Your task to perform on an android device: open app "Life360: Find Family & Friends" (install if not already installed) and enter user name: "gusts@gmail.com" and password: "assurers" Image 0: 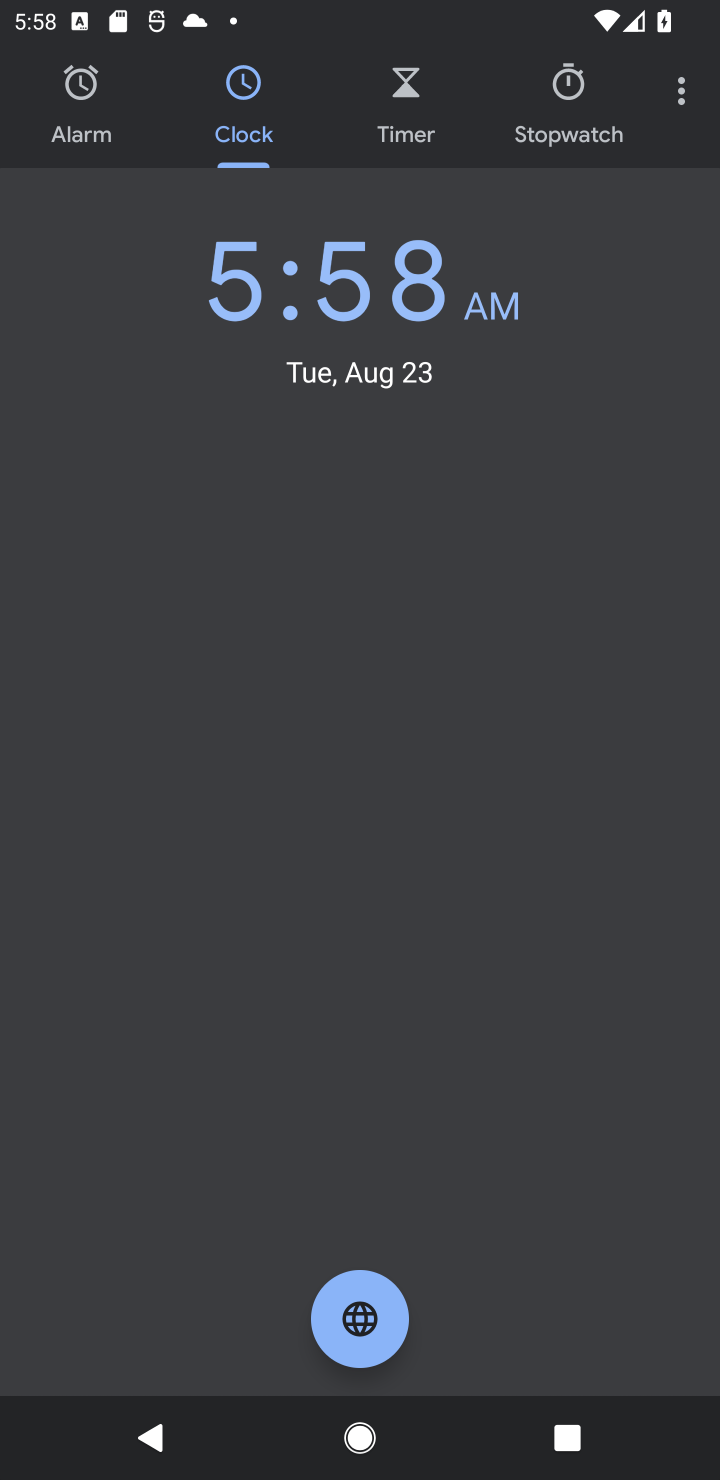
Step 0: press home button
Your task to perform on an android device: open app "Life360: Find Family & Friends" (install if not already installed) and enter user name: "gusts@gmail.com" and password: "assurers" Image 1: 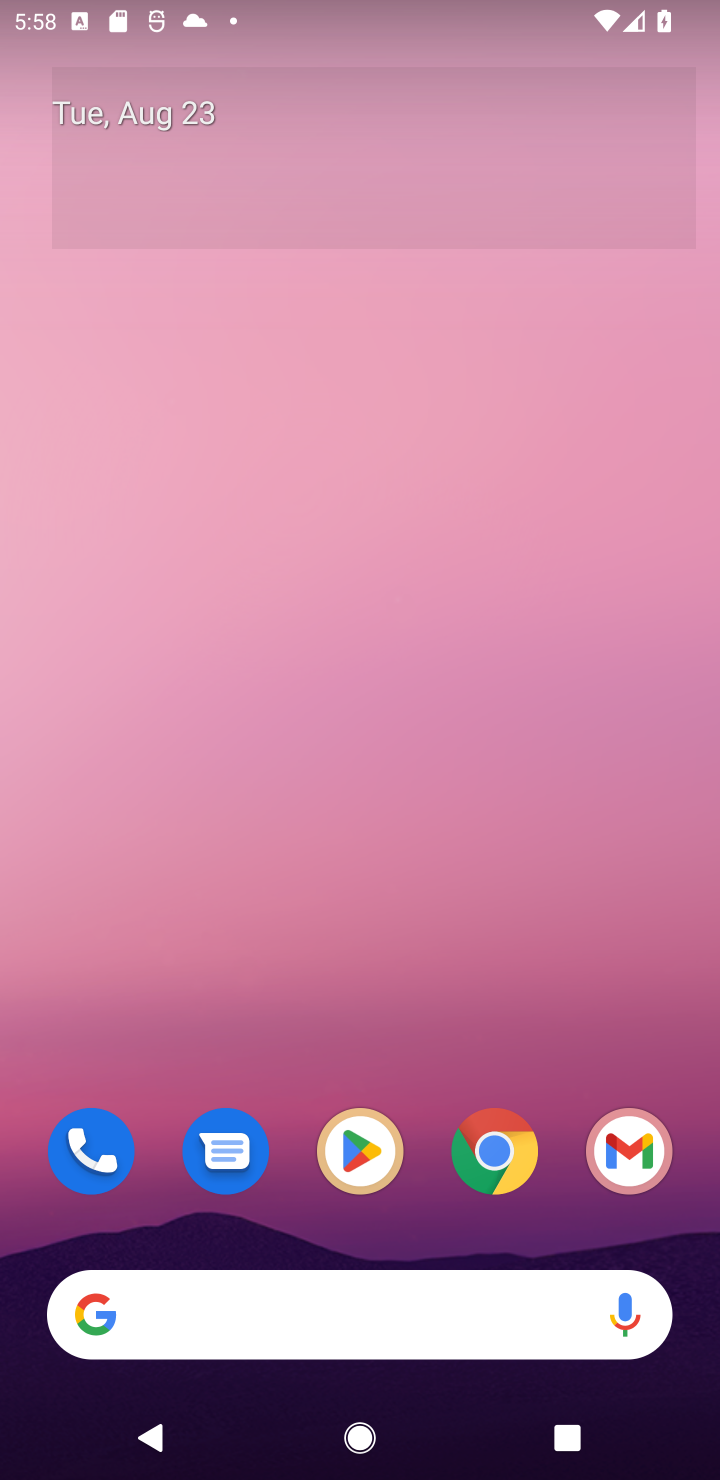
Step 1: click (333, 1147)
Your task to perform on an android device: open app "Life360: Find Family & Friends" (install if not already installed) and enter user name: "gusts@gmail.com" and password: "assurers" Image 2: 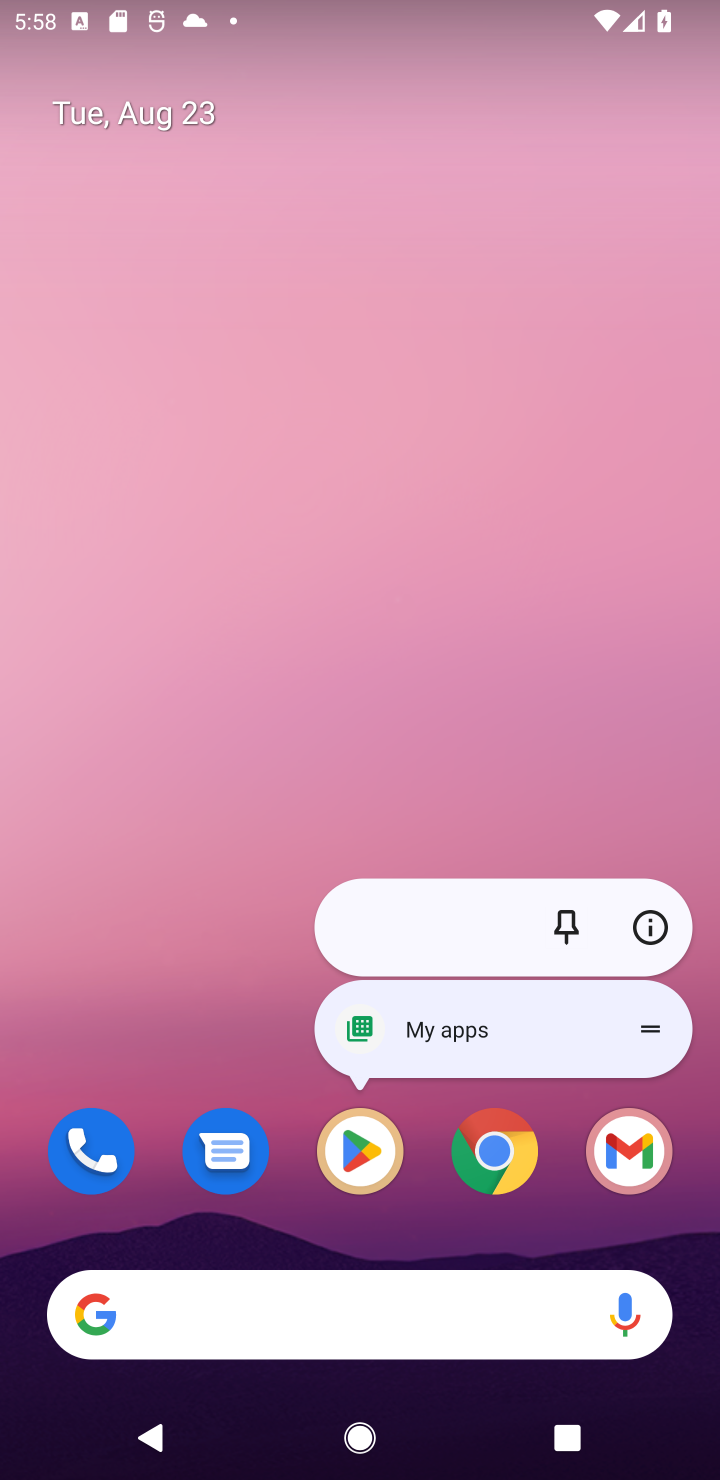
Step 2: click (379, 1149)
Your task to perform on an android device: open app "Life360: Find Family & Friends" (install if not already installed) and enter user name: "gusts@gmail.com" and password: "assurers" Image 3: 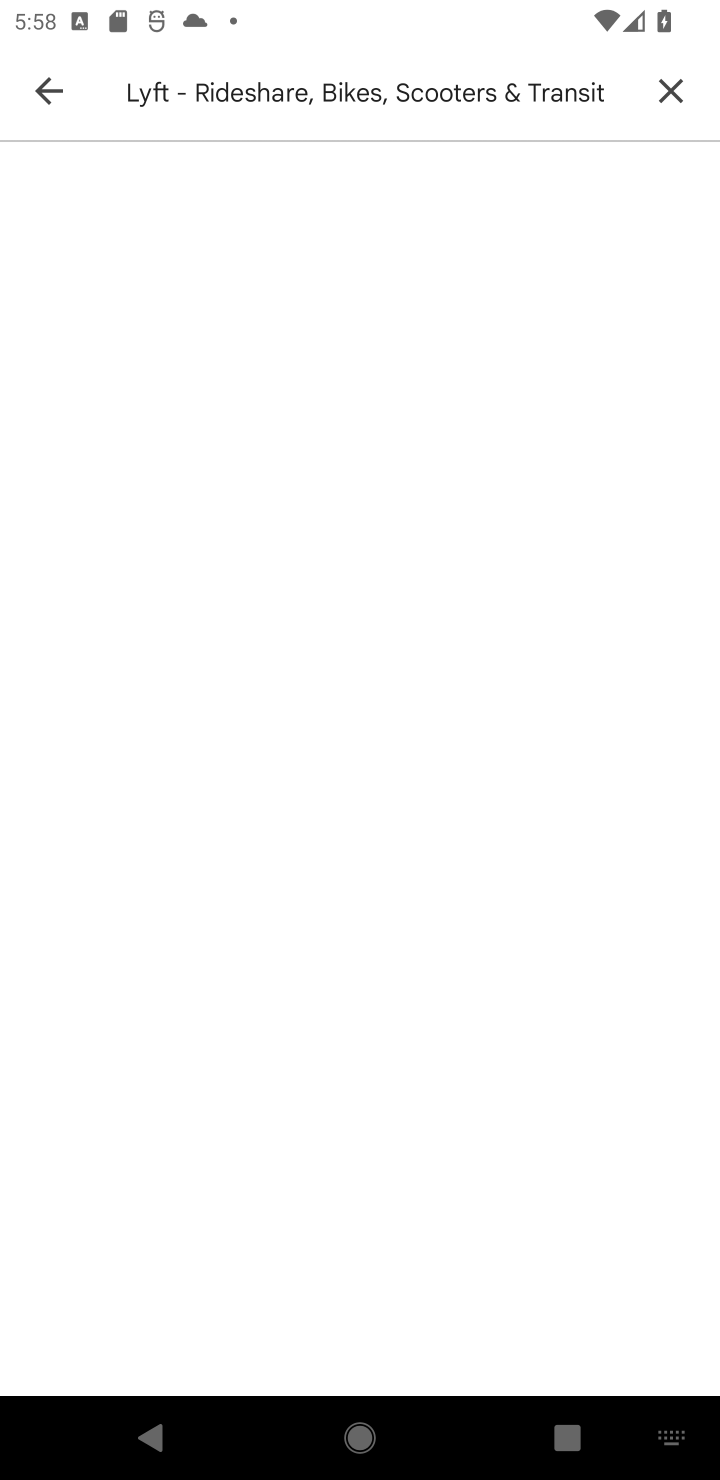
Step 3: click (663, 77)
Your task to perform on an android device: open app "Life360: Find Family & Friends" (install if not already installed) and enter user name: "gusts@gmail.com" and password: "assurers" Image 4: 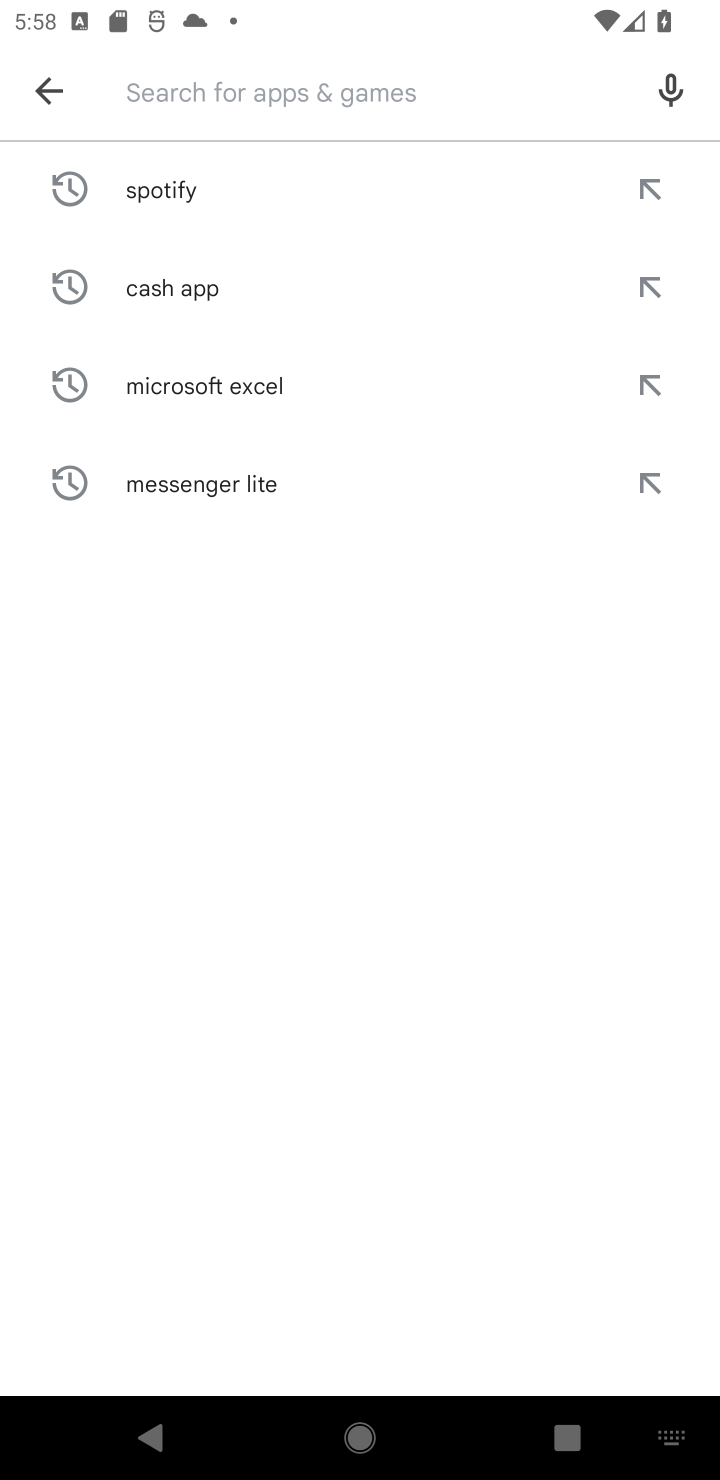
Step 4: type "Life360: Find Family & Friends"
Your task to perform on an android device: open app "Life360: Find Family & Friends" (install if not already installed) and enter user name: "gusts@gmail.com" and password: "assurers" Image 5: 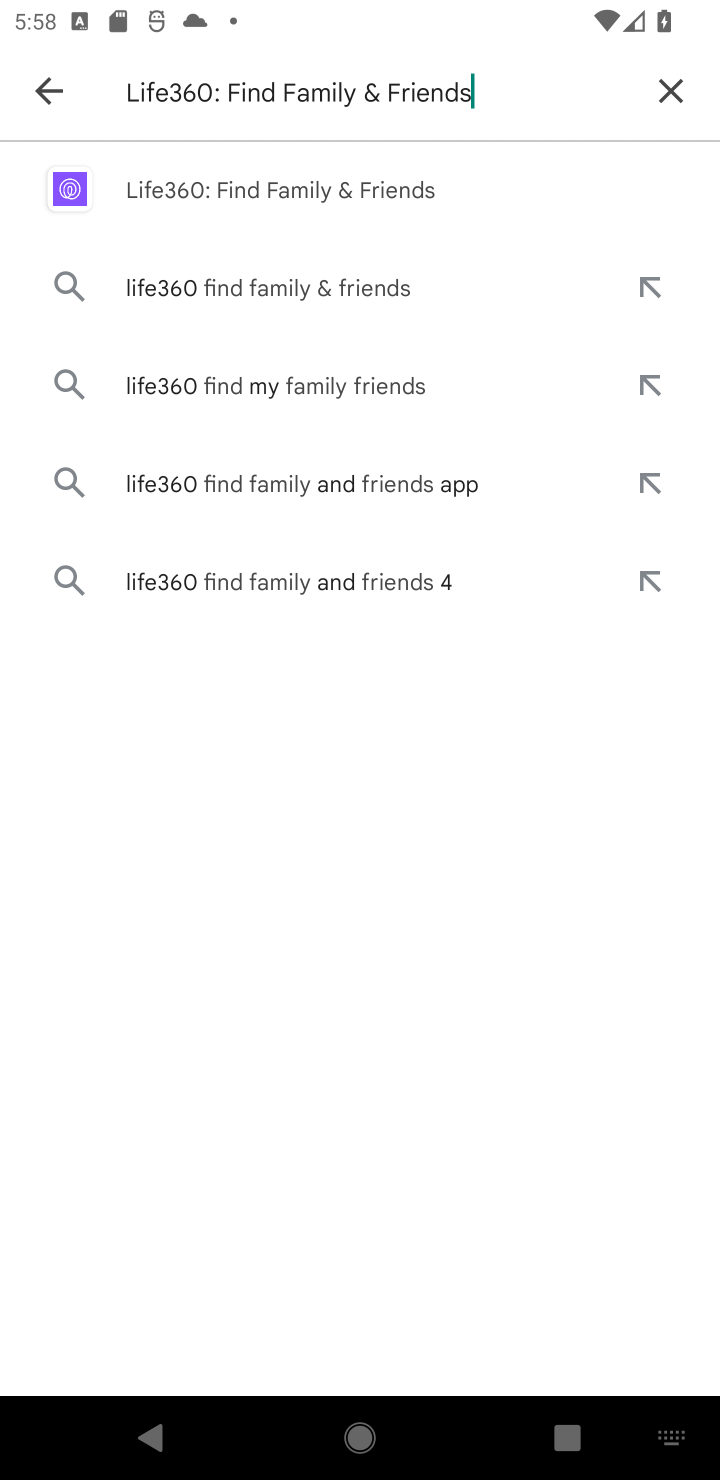
Step 5: click (318, 175)
Your task to perform on an android device: open app "Life360: Find Family & Friends" (install if not already installed) and enter user name: "gusts@gmail.com" and password: "assurers" Image 6: 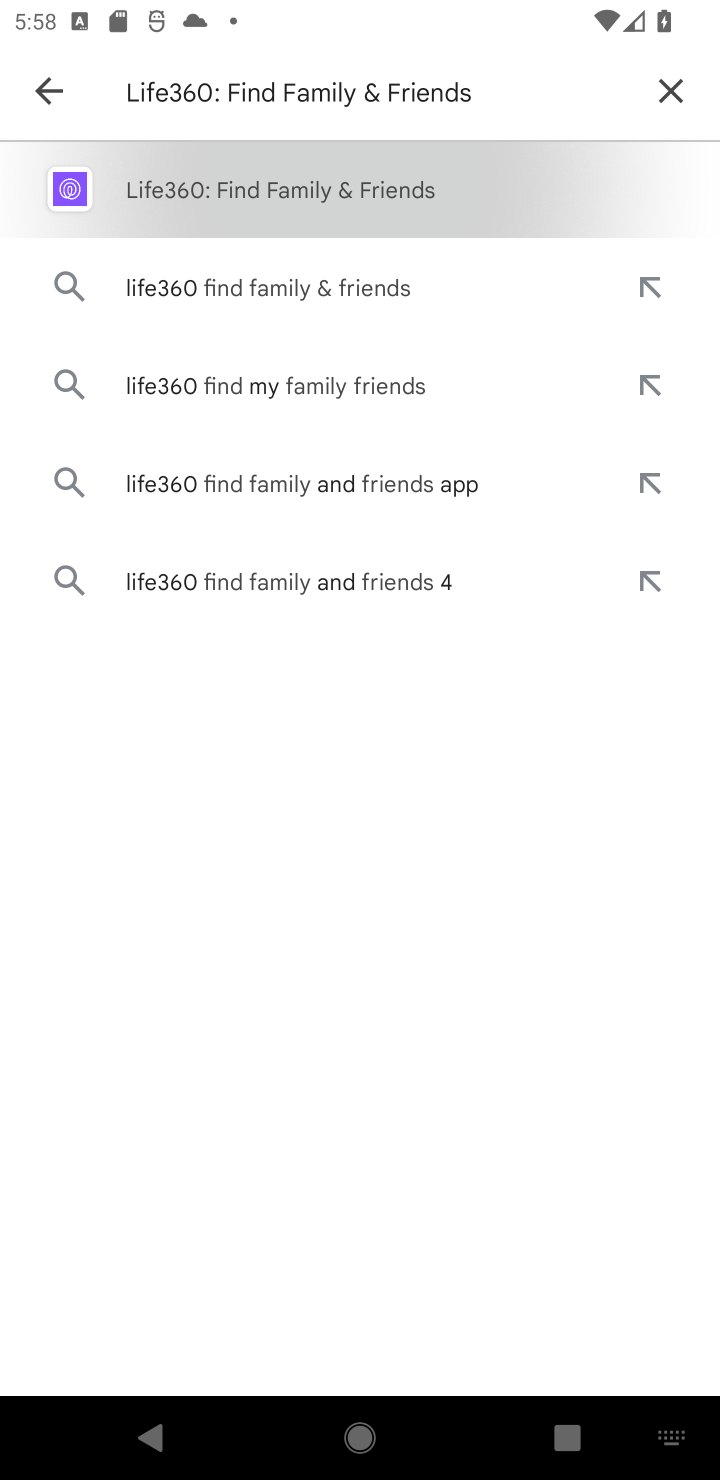
Step 6: click (309, 188)
Your task to perform on an android device: open app "Life360: Find Family & Friends" (install if not already installed) and enter user name: "gusts@gmail.com" and password: "assurers" Image 7: 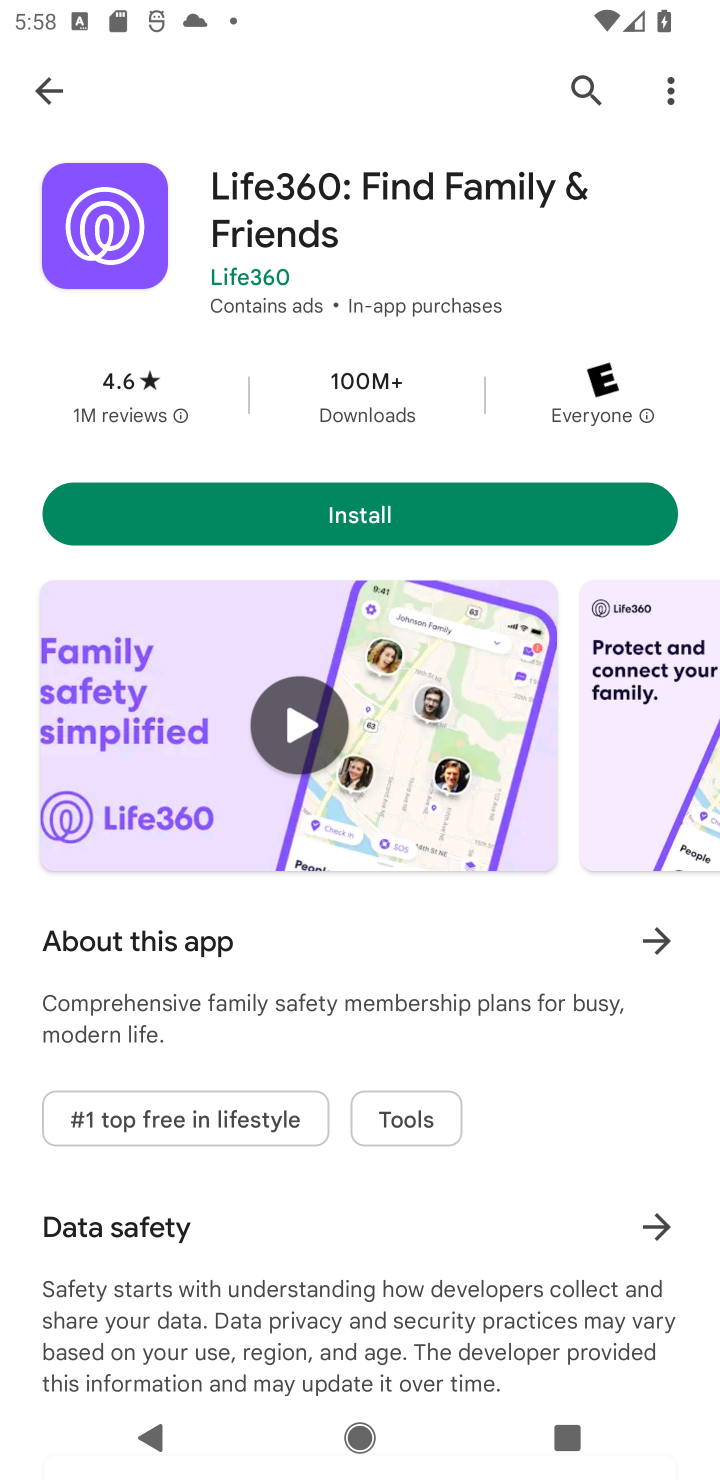
Step 7: click (347, 506)
Your task to perform on an android device: open app "Life360: Find Family & Friends" (install if not already installed) and enter user name: "gusts@gmail.com" and password: "assurers" Image 8: 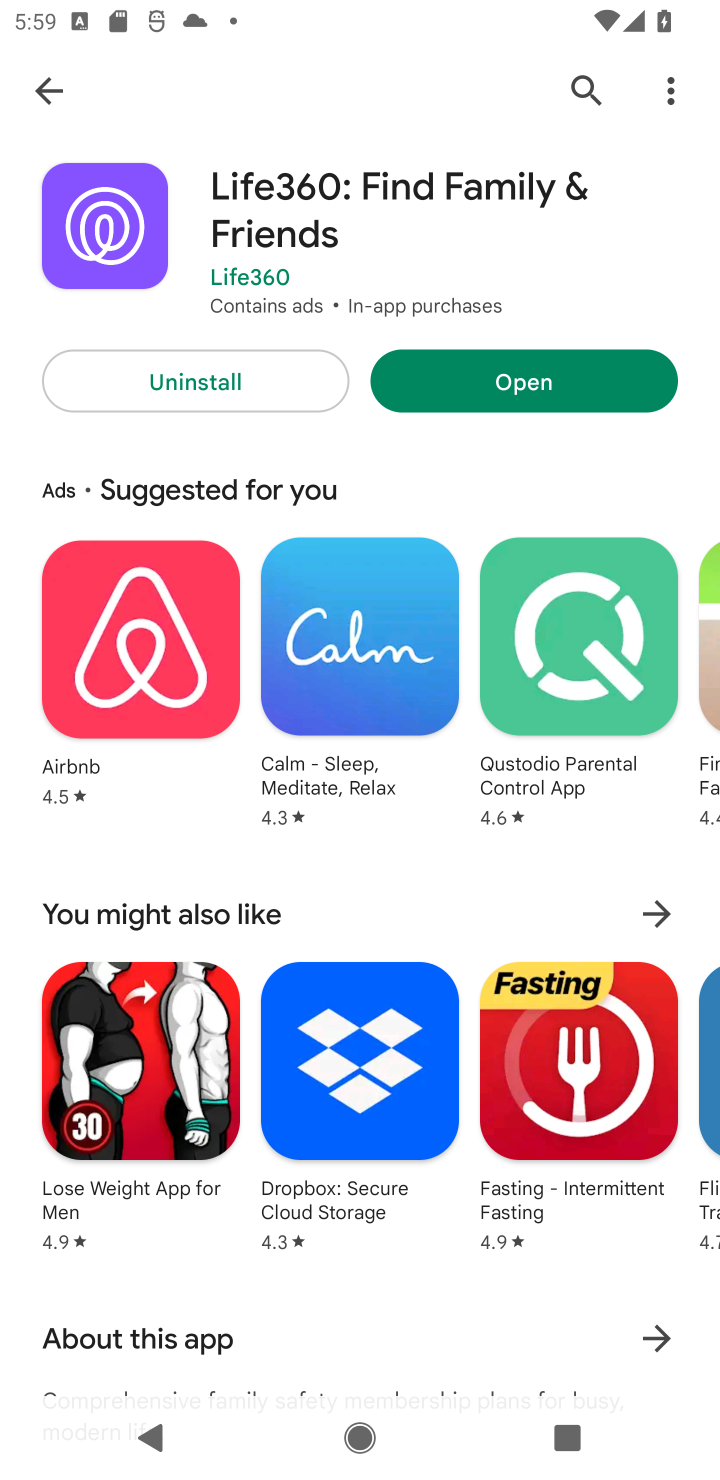
Step 8: click (597, 390)
Your task to perform on an android device: open app "Life360: Find Family & Friends" (install if not already installed) and enter user name: "gusts@gmail.com" and password: "assurers" Image 9: 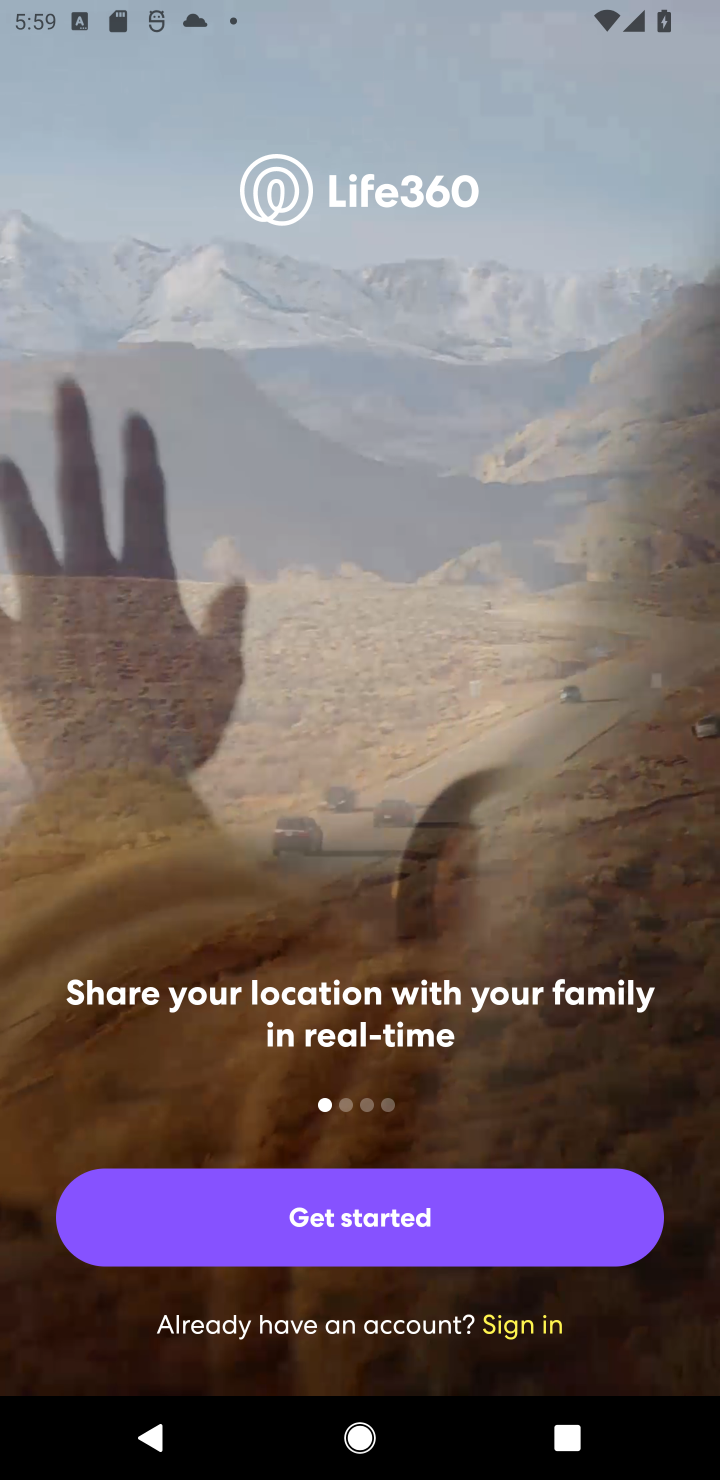
Step 9: click (496, 1324)
Your task to perform on an android device: open app "Life360: Find Family & Friends" (install if not already installed) and enter user name: "gusts@gmail.com" and password: "assurers" Image 10: 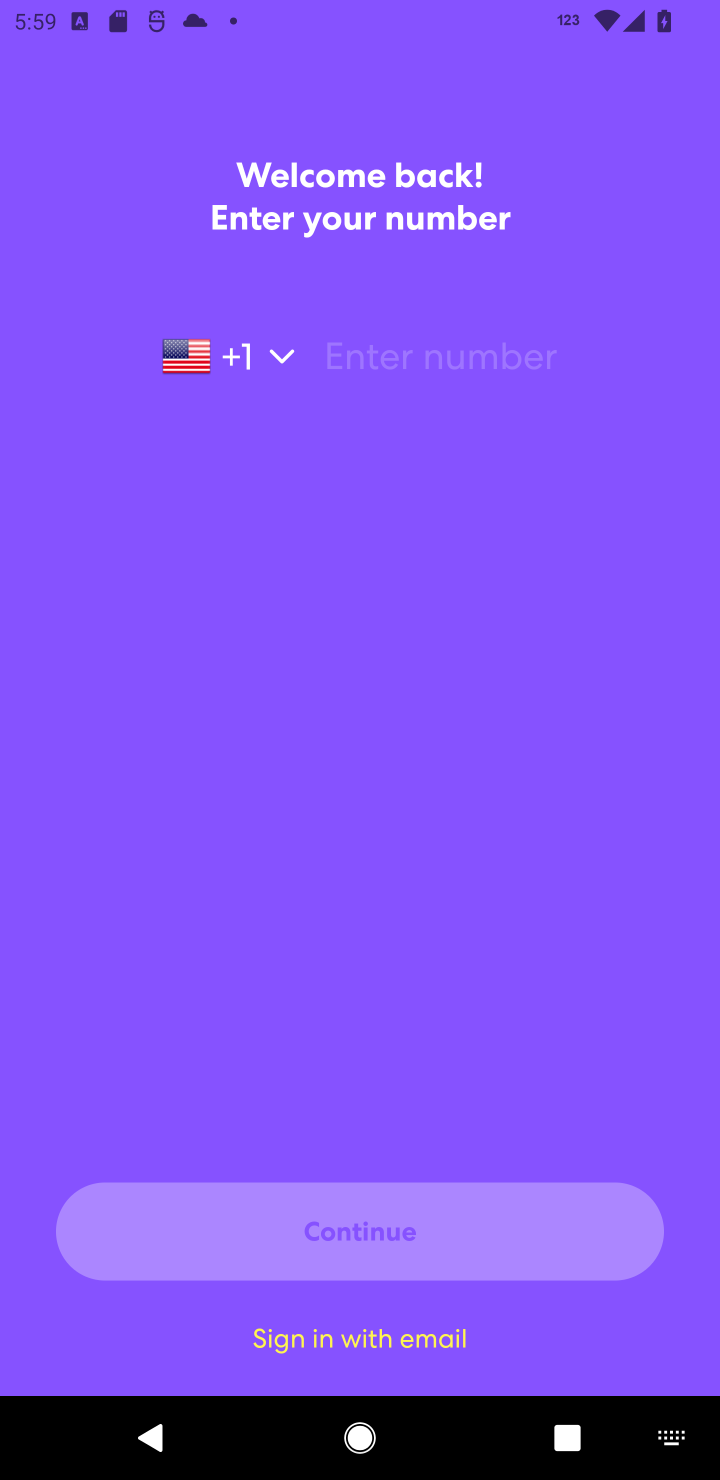
Step 10: click (430, 1348)
Your task to perform on an android device: open app "Life360: Find Family & Friends" (install if not already installed) and enter user name: "gusts@gmail.com" and password: "assurers" Image 11: 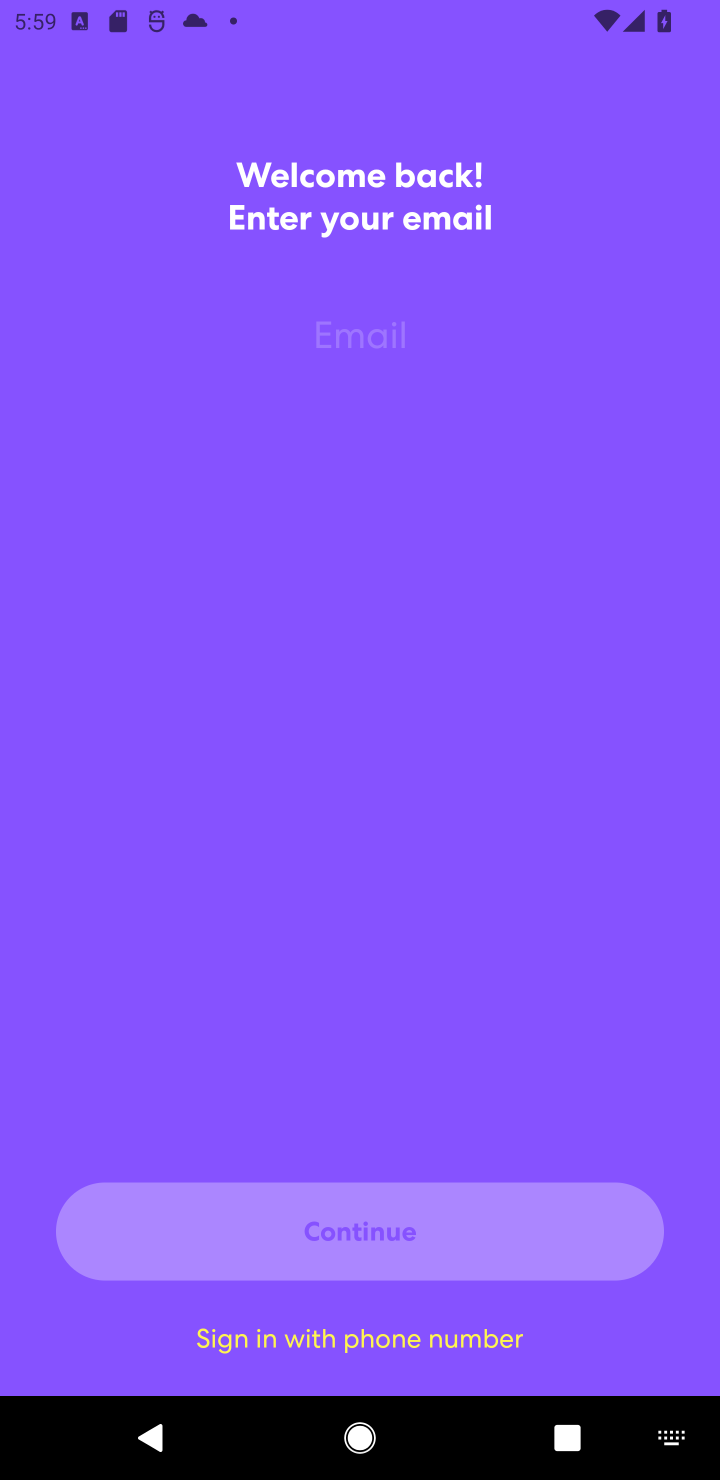
Step 11: click (356, 323)
Your task to perform on an android device: open app "Life360: Find Family & Friends" (install if not already installed) and enter user name: "gusts@gmail.com" and password: "assurers" Image 12: 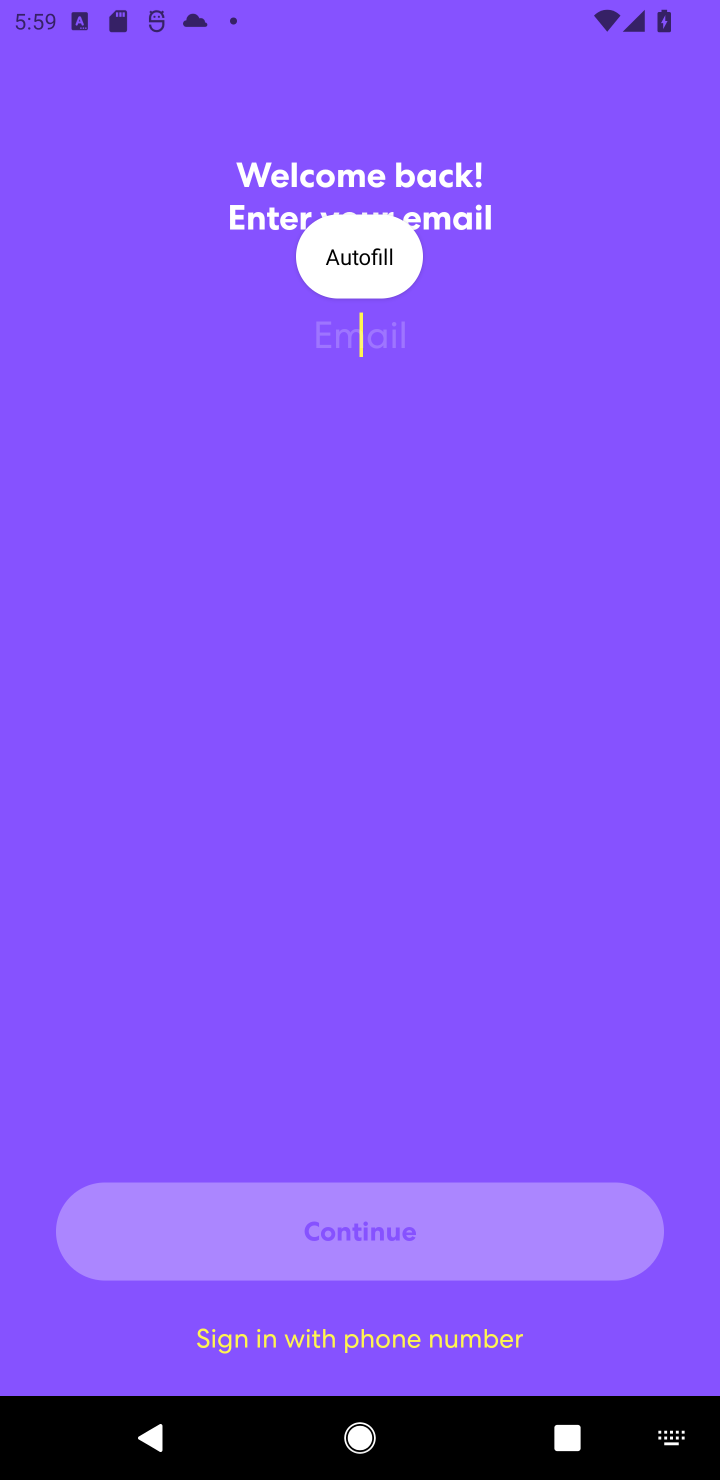
Step 12: type "gusts@gmail.com"
Your task to perform on an android device: open app "Life360: Find Family & Friends" (install if not already installed) and enter user name: "gusts@gmail.com" and password: "assurers" Image 13: 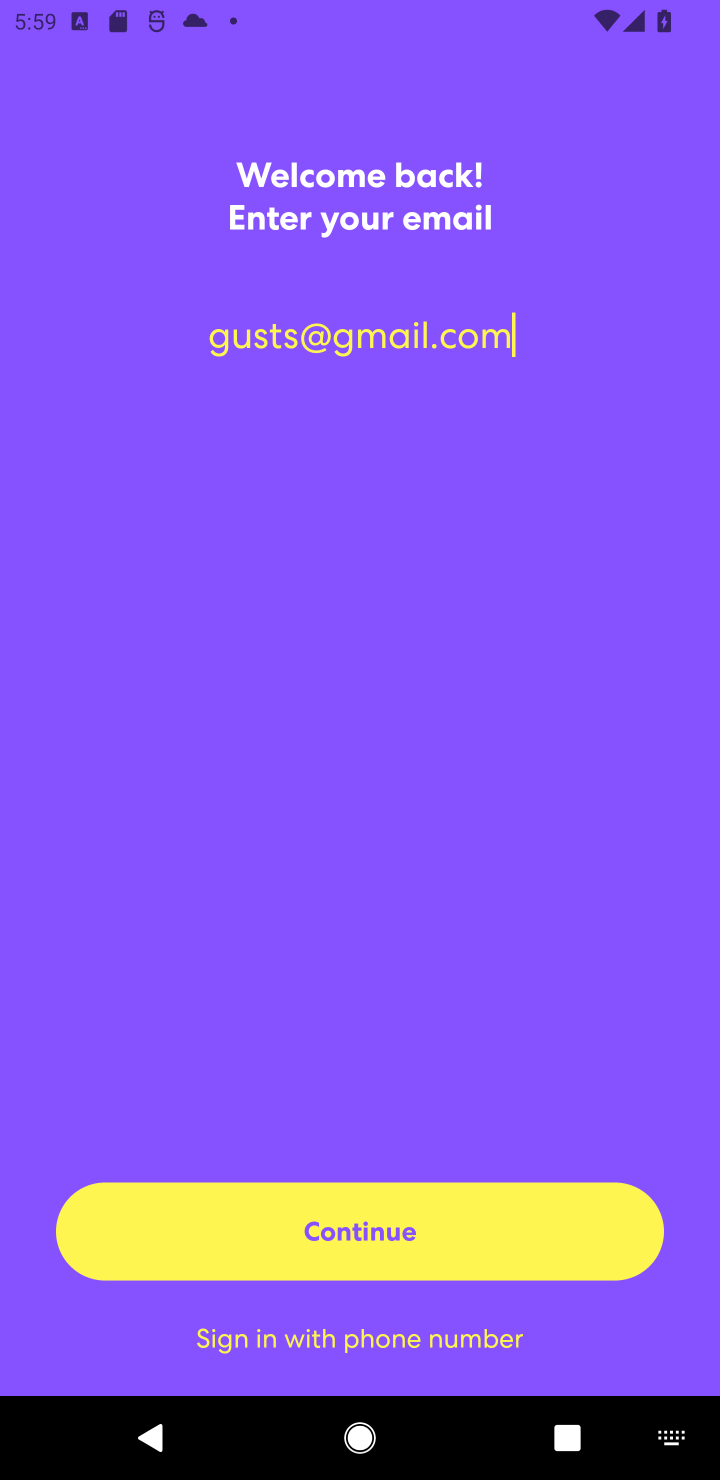
Step 13: click (386, 1229)
Your task to perform on an android device: open app "Life360: Find Family & Friends" (install if not already installed) and enter user name: "gusts@gmail.com" and password: "assurers" Image 14: 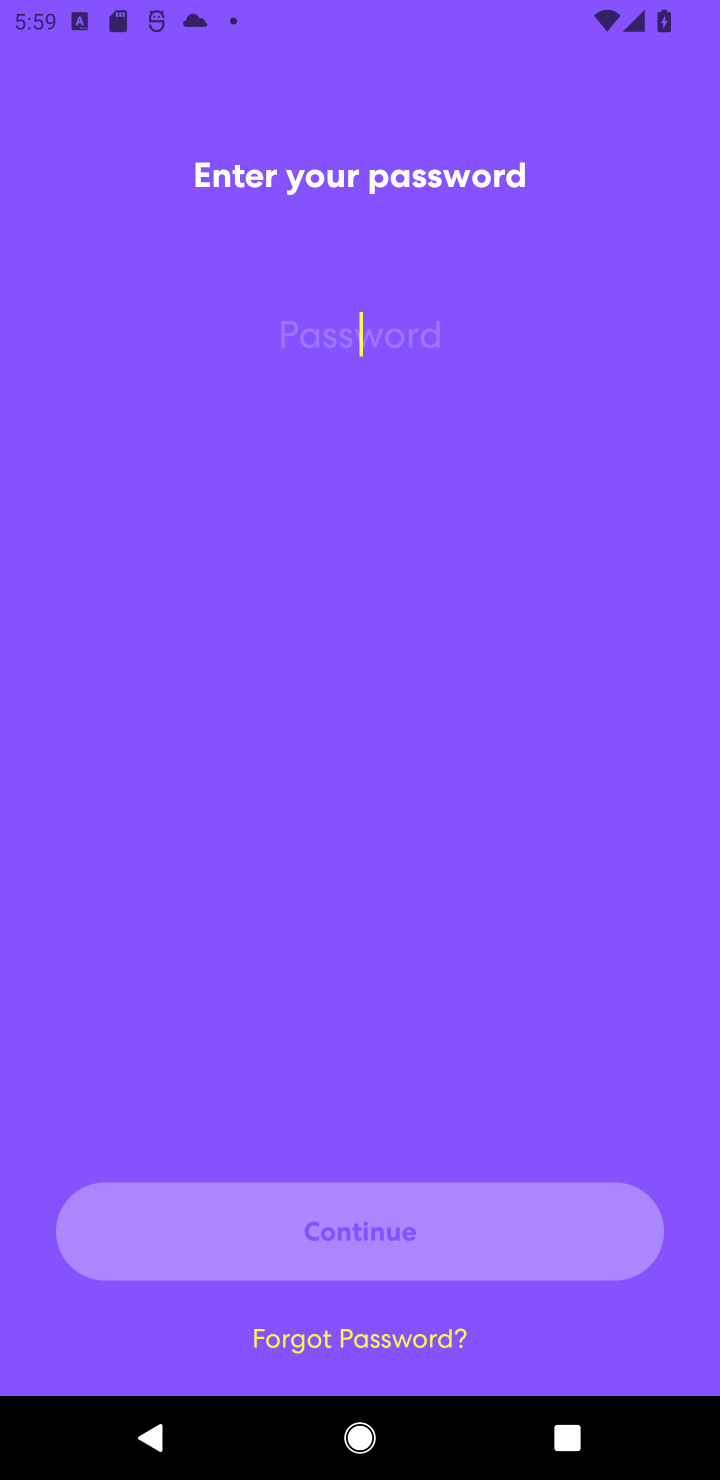
Step 14: type "assurers"
Your task to perform on an android device: open app "Life360: Find Family & Friends" (install if not already installed) and enter user name: "gusts@gmail.com" and password: "assurers" Image 15: 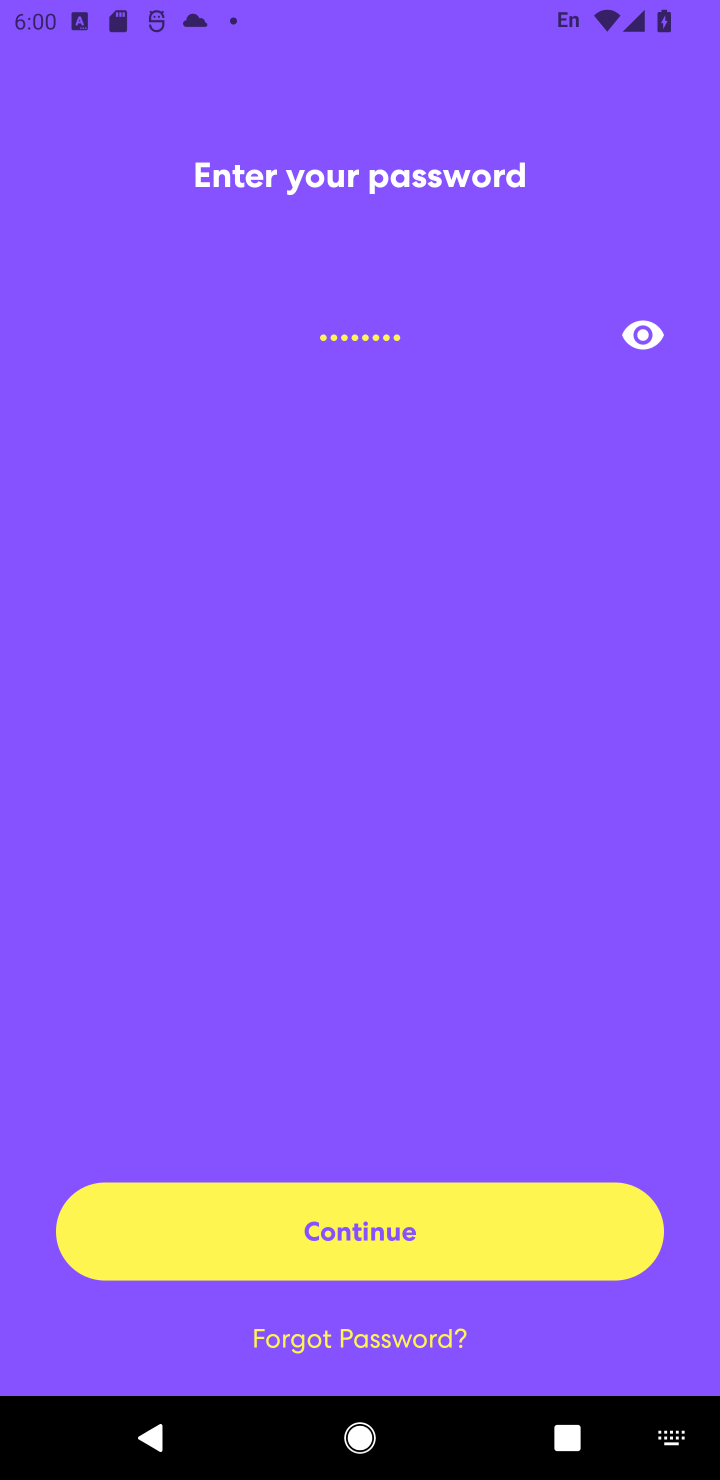
Step 15: task complete